Your task to perform on an android device: set an alarm Image 0: 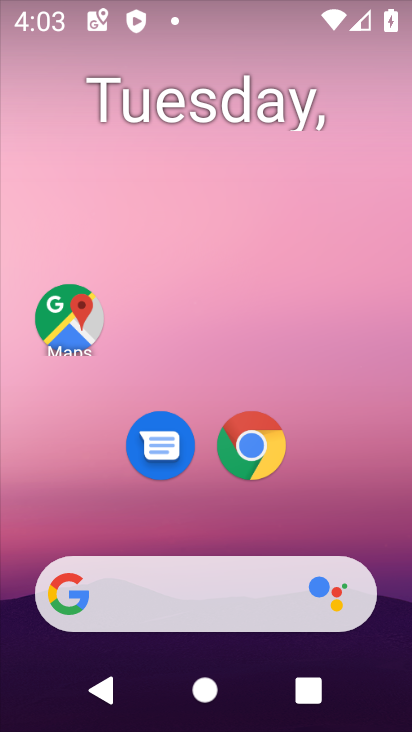
Step 0: drag from (267, 537) to (273, 9)
Your task to perform on an android device: set an alarm Image 1: 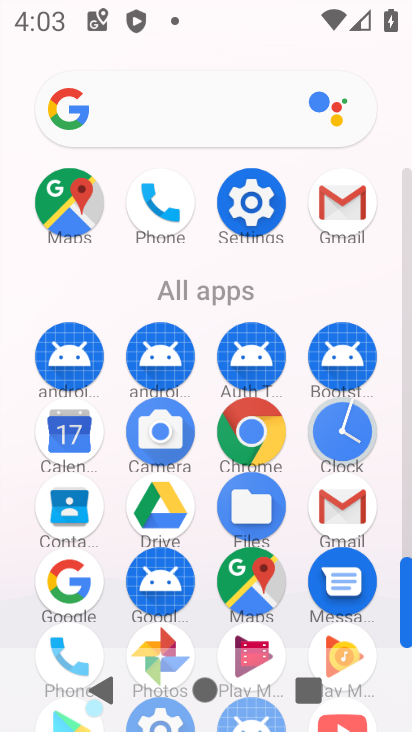
Step 1: click (343, 436)
Your task to perform on an android device: set an alarm Image 2: 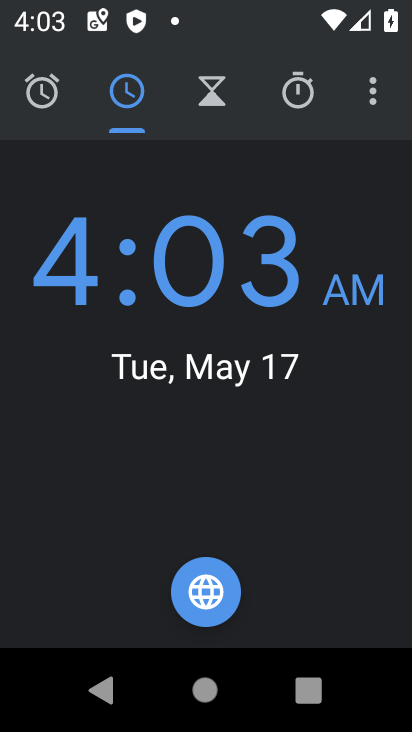
Step 2: click (50, 96)
Your task to perform on an android device: set an alarm Image 3: 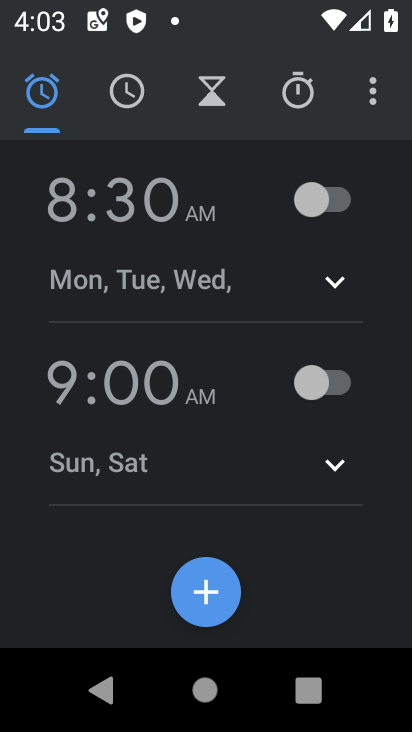
Step 3: click (342, 197)
Your task to perform on an android device: set an alarm Image 4: 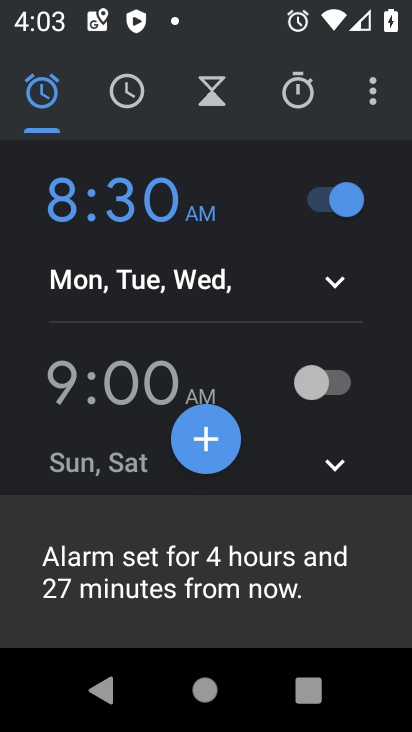
Step 4: task complete